Your task to perform on an android device: toggle wifi Image 0: 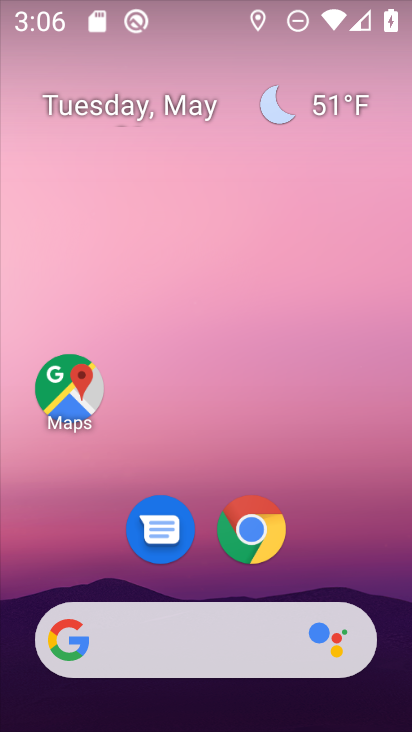
Step 0: drag from (302, 13) to (284, 607)
Your task to perform on an android device: toggle wifi Image 1: 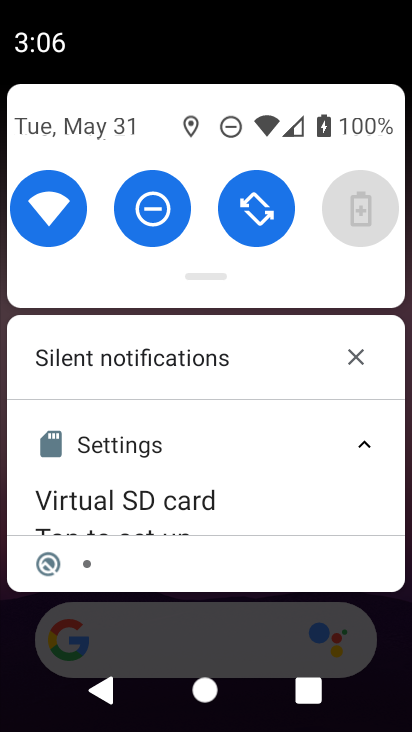
Step 1: click (58, 200)
Your task to perform on an android device: toggle wifi Image 2: 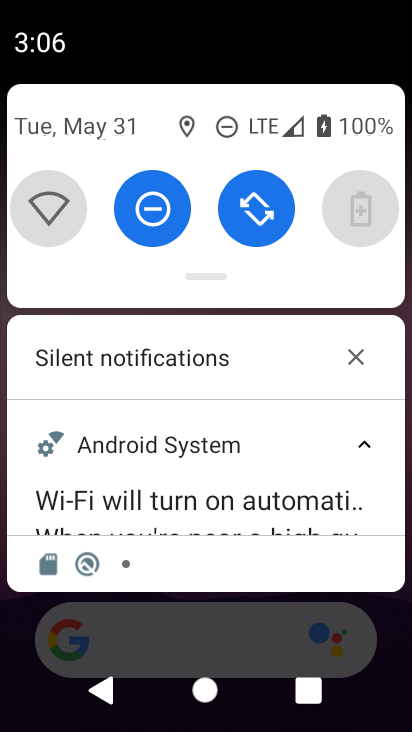
Step 2: task complete